Your task to perform on an android device: change text size in settings app Image 0: 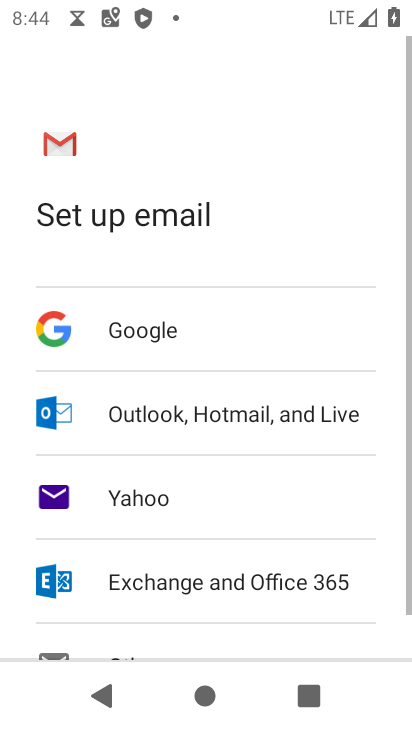
Step 0: press home button
Your task to perform on an android device: change text size in settings app Image 1: 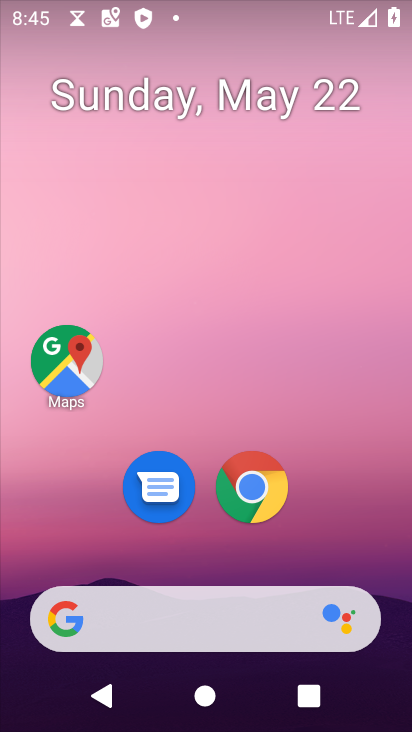
Step 1: drag from (350, 410) to (303, 96)
Your task to perform on an android device: change text size in settings app Image 2: 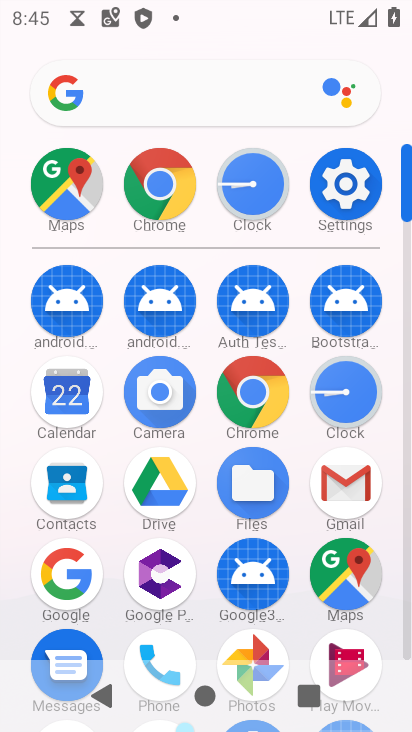
Step 2: click (337, 186)
Your task to perform on an android device: change text size in settings app Image 3: 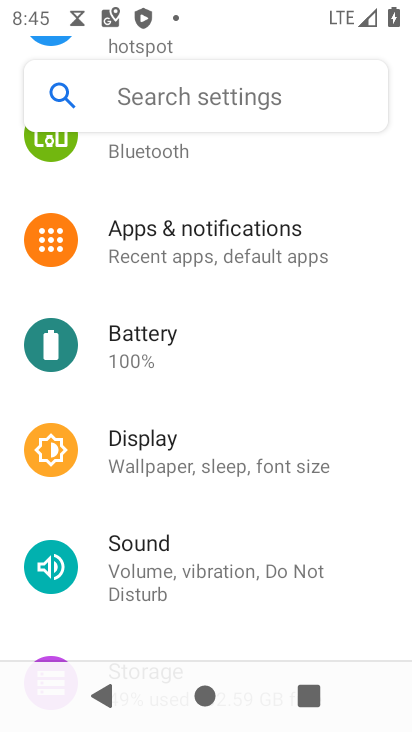
Step 3: click (273, 459)
Your task to perform on an android device: change text size in settings app Image 4: 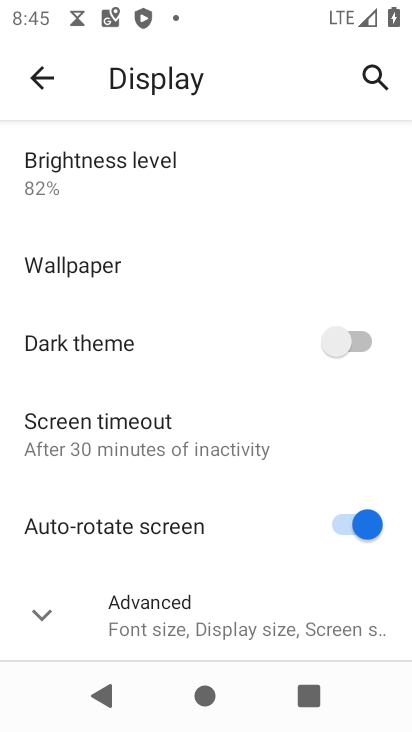
Step 4: click (286, 606)
Your task to perform on an android device: change text size in settings app Image 5: 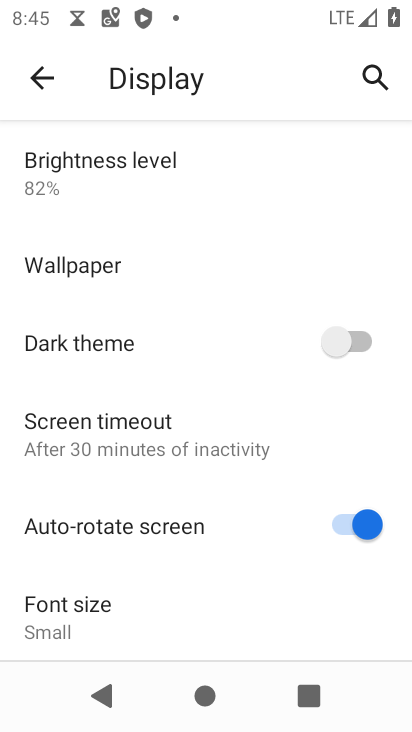
Step 5: click (137, 623)
Your task to perform on an android device: change text size in settings app Image 6: 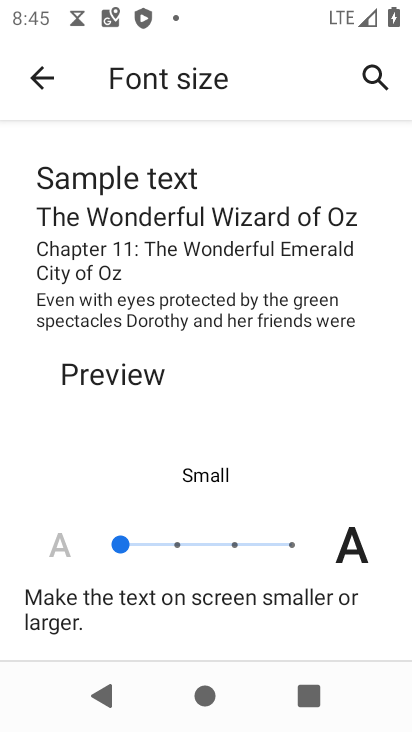
Step 6: click (146, 549)
Your task to perform on an android device: change text size in settings app Image 7: 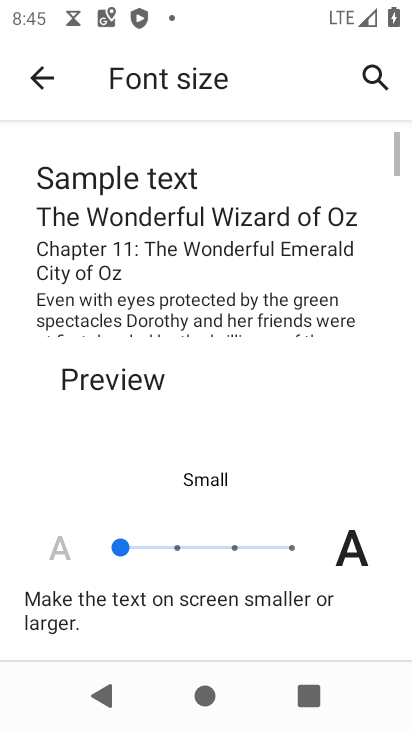
Step 7: click (165, 540)
Your task to perform on an android device: change text size in settings app Image 8: 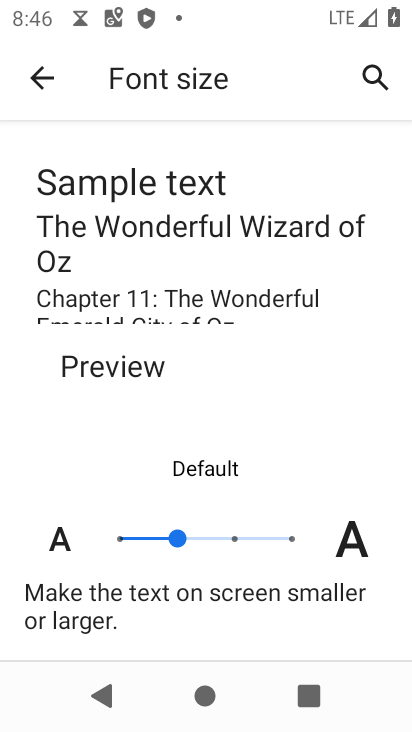
Step 8: task complete